Your task to perform on an android device: all mails in gmail Image 0: 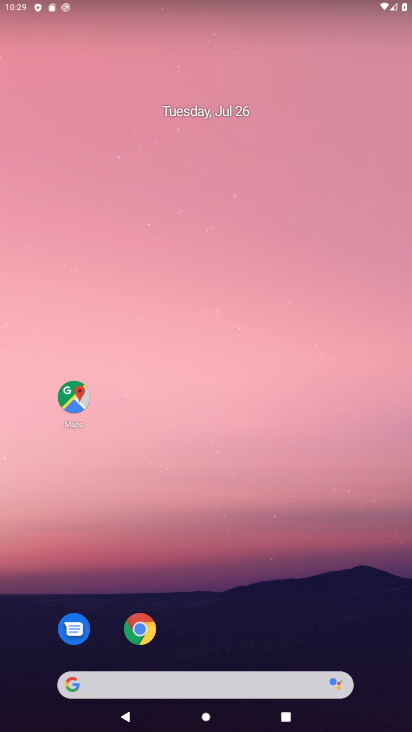
Step 0: drag from (288, 636) to (240, 25)
Your task to perform on an android device: all mails in gmail Image 1: 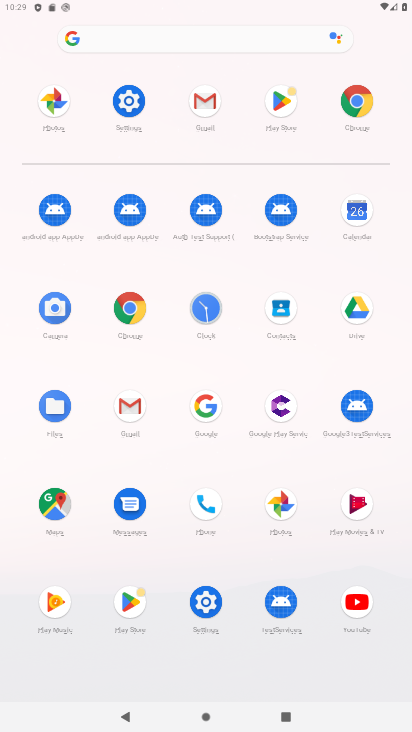
Step 1: click (202, 129)
Your task to perform on an android device: all mails in gmail Image 2: 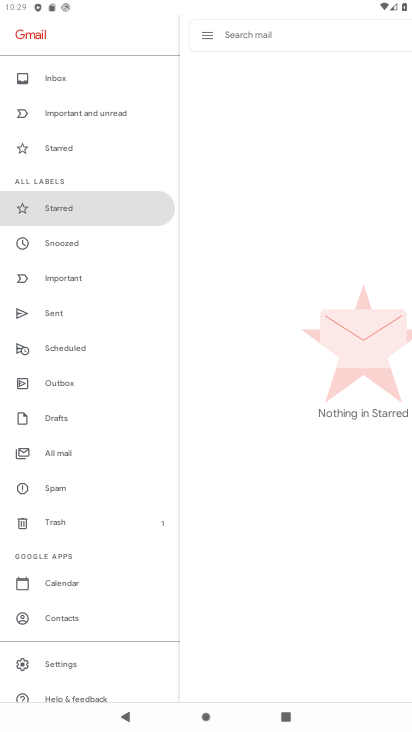
Step 2: task complete